Your task to perform on an android device: Search for cool wooden wall art on Etsy. Image 0: 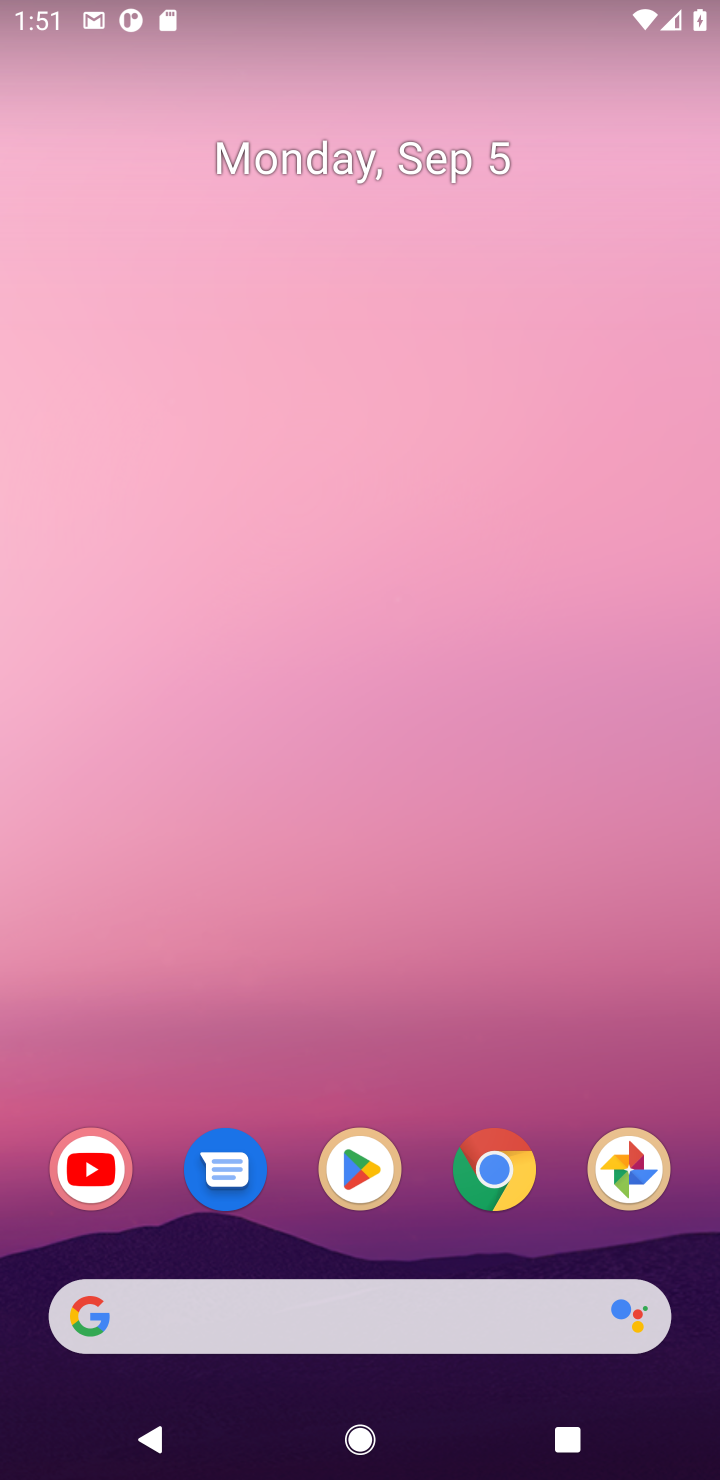
Step 0: click (326, 1183)
Your task to perform on an android device: Search for cool wooden wall art on Etsy. Image 1: 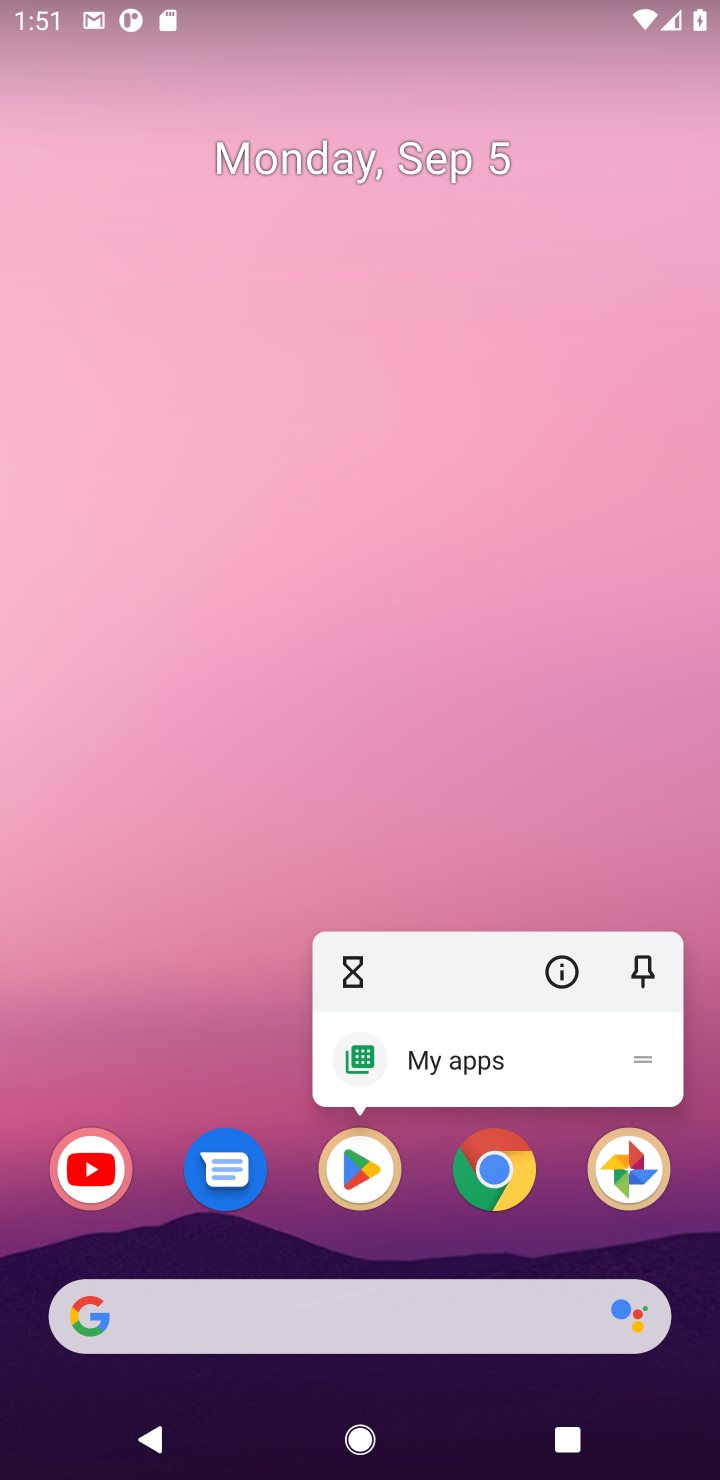
Step 1: click (326, 1183)
Your task to perform on an android device: Search for cool wooden wall art on Etsy. Image 2: 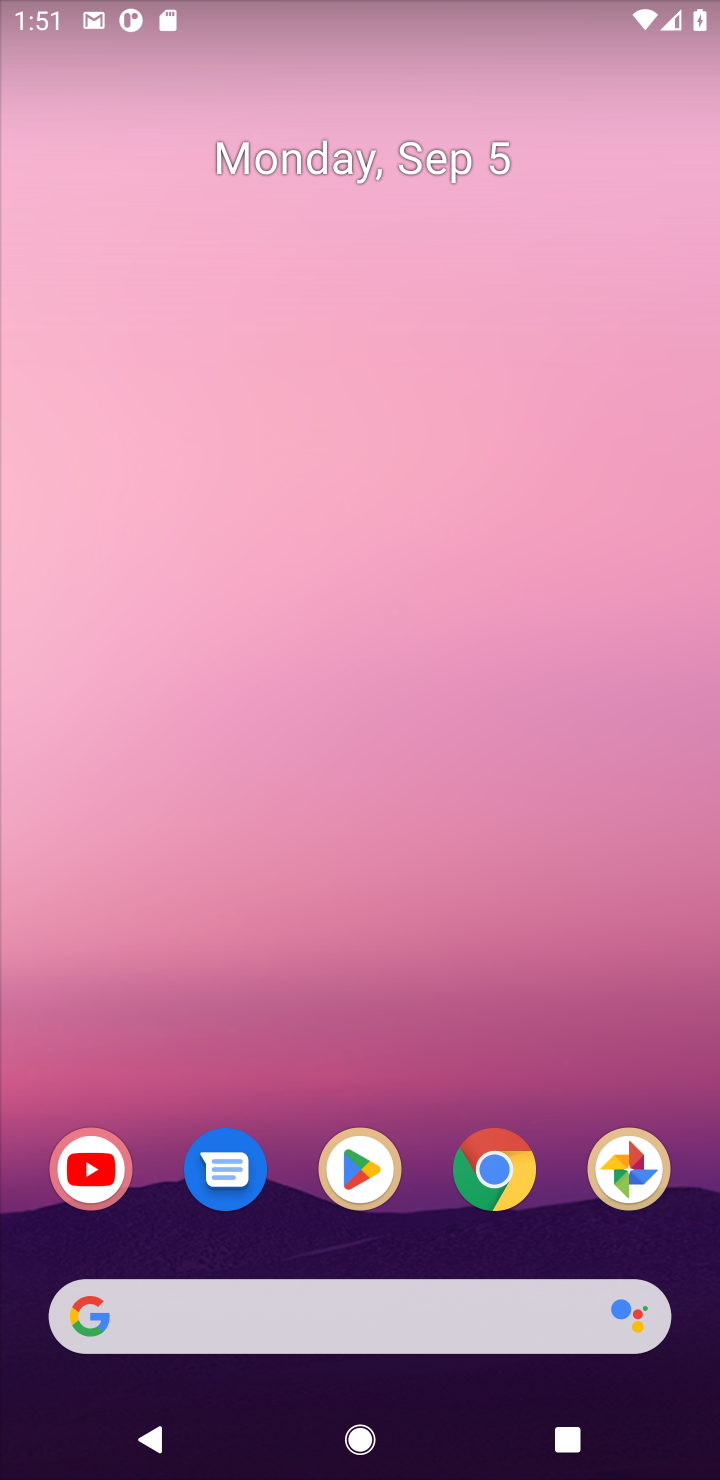
Step 2: click (326, 1183)
Your task to perform on an android device: Search for cool wooden wall art on Etsy. Image 3: 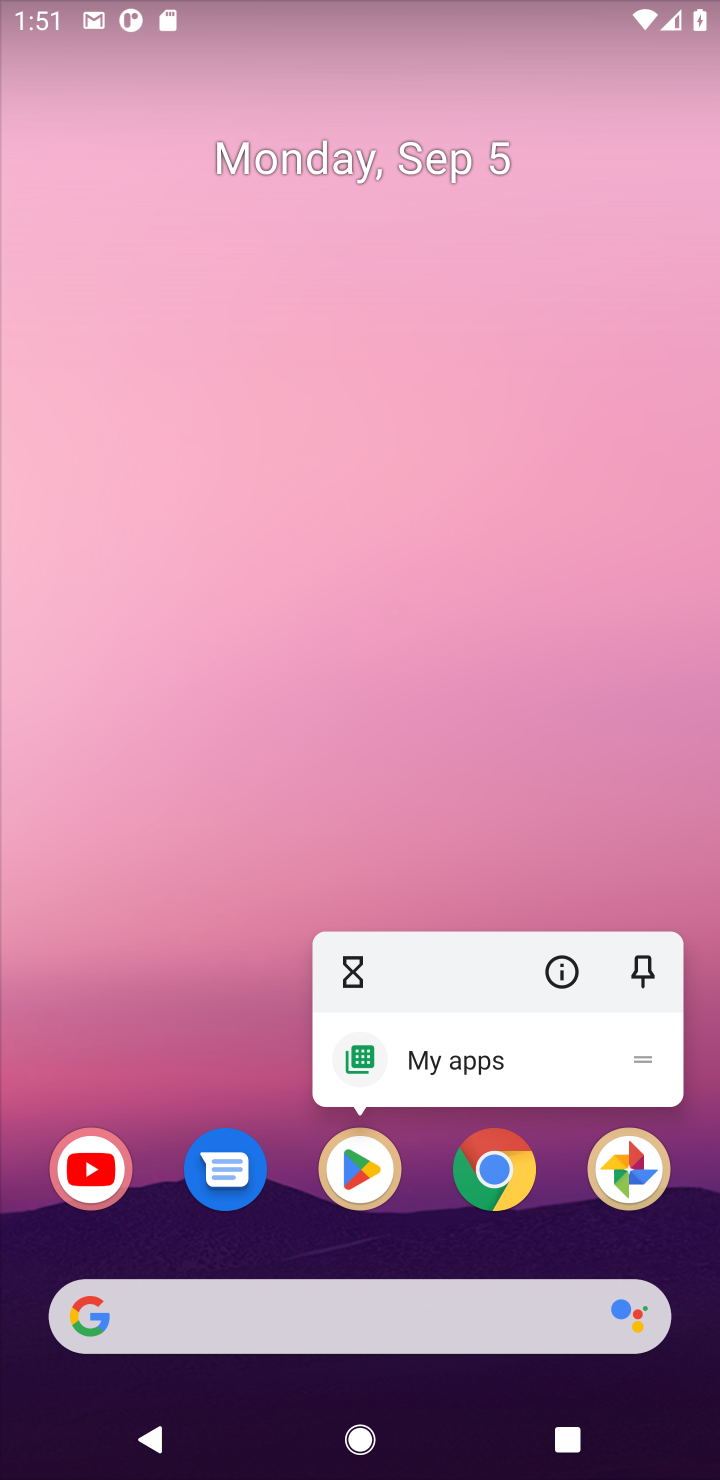
Step 3: click (326, 1183)
Your task to perform on an android device: Search for cool wooden wall art on Etsy. Image 4: 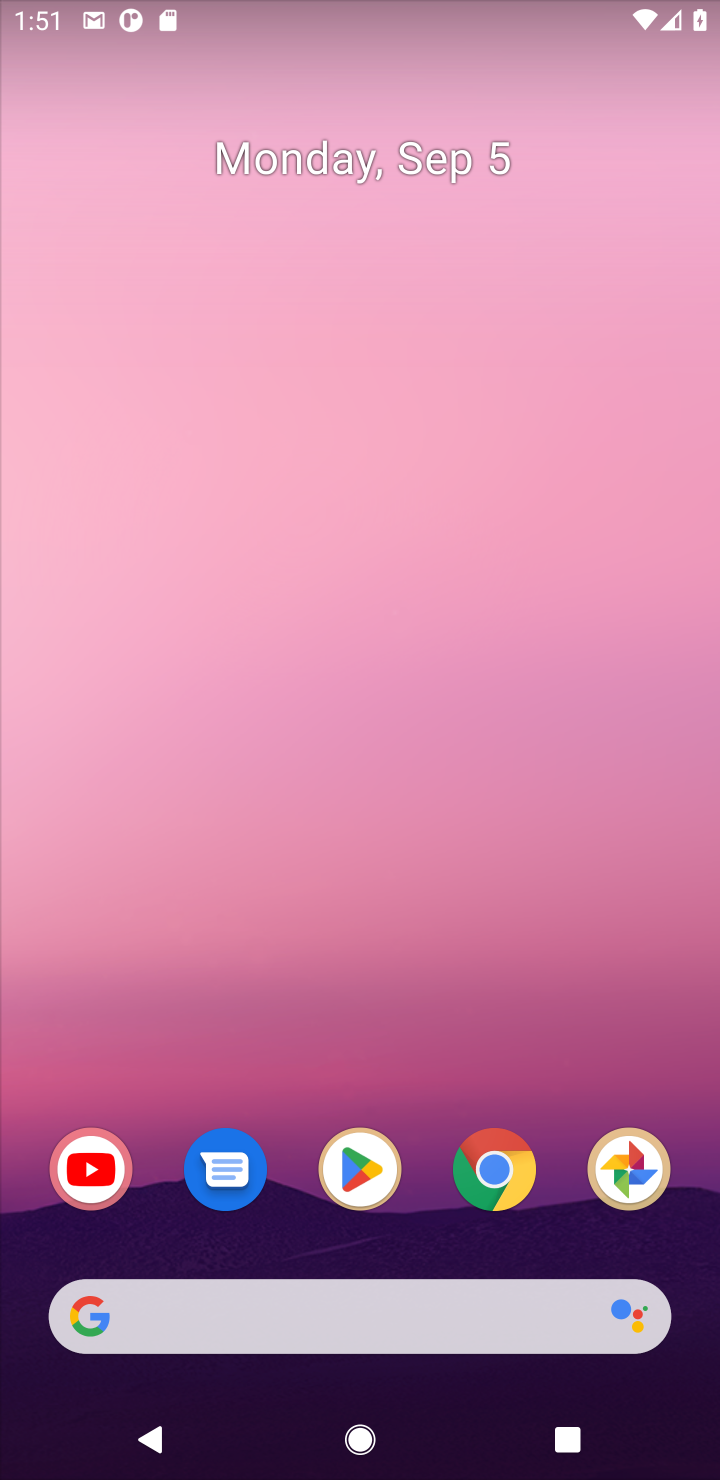
Step 4: task complete